Your task to perform on an android device: How much does a 2 bedroom apartment rent for in Boston? Image 0: 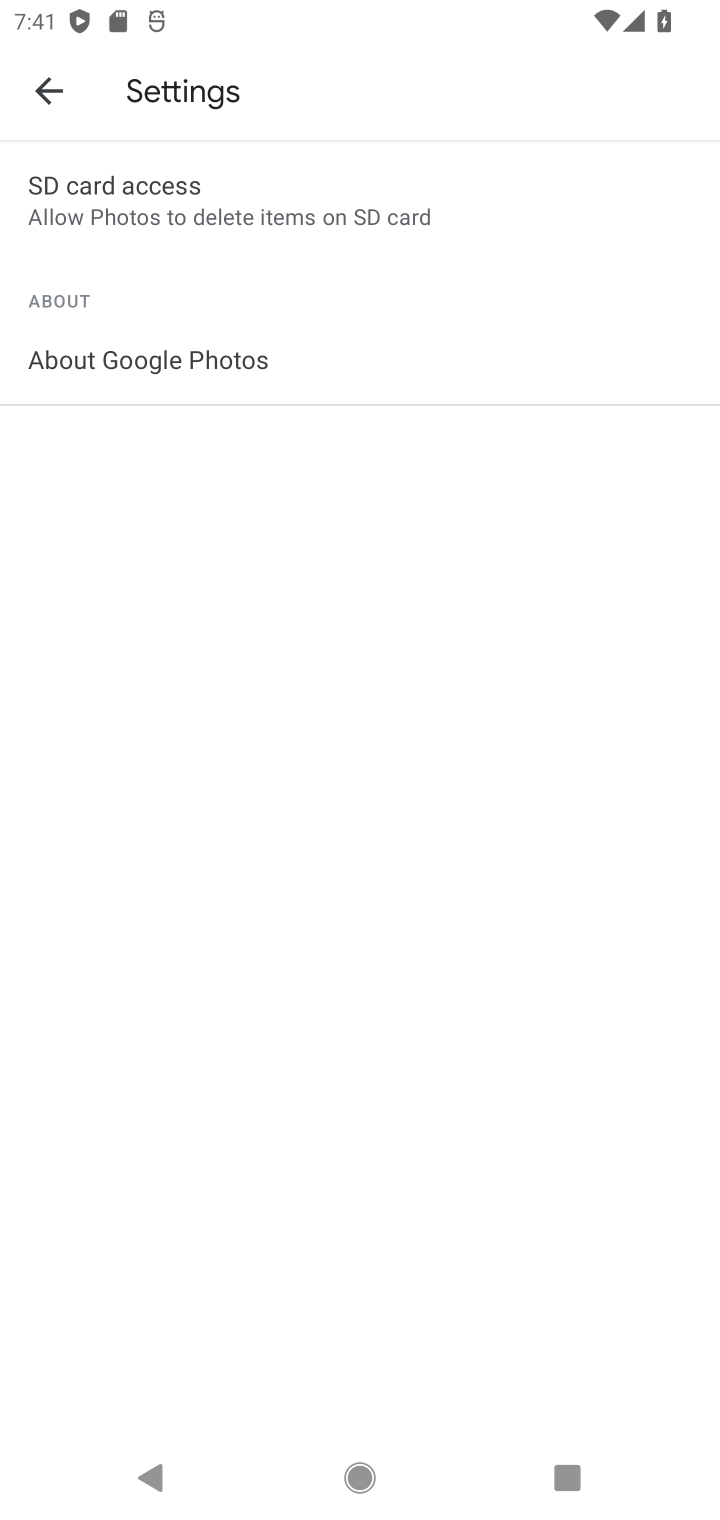
Step 0: press home button
Your task to perform on an android device: How much does a 2 bedroom apartment rent for in Boston? Image 1: 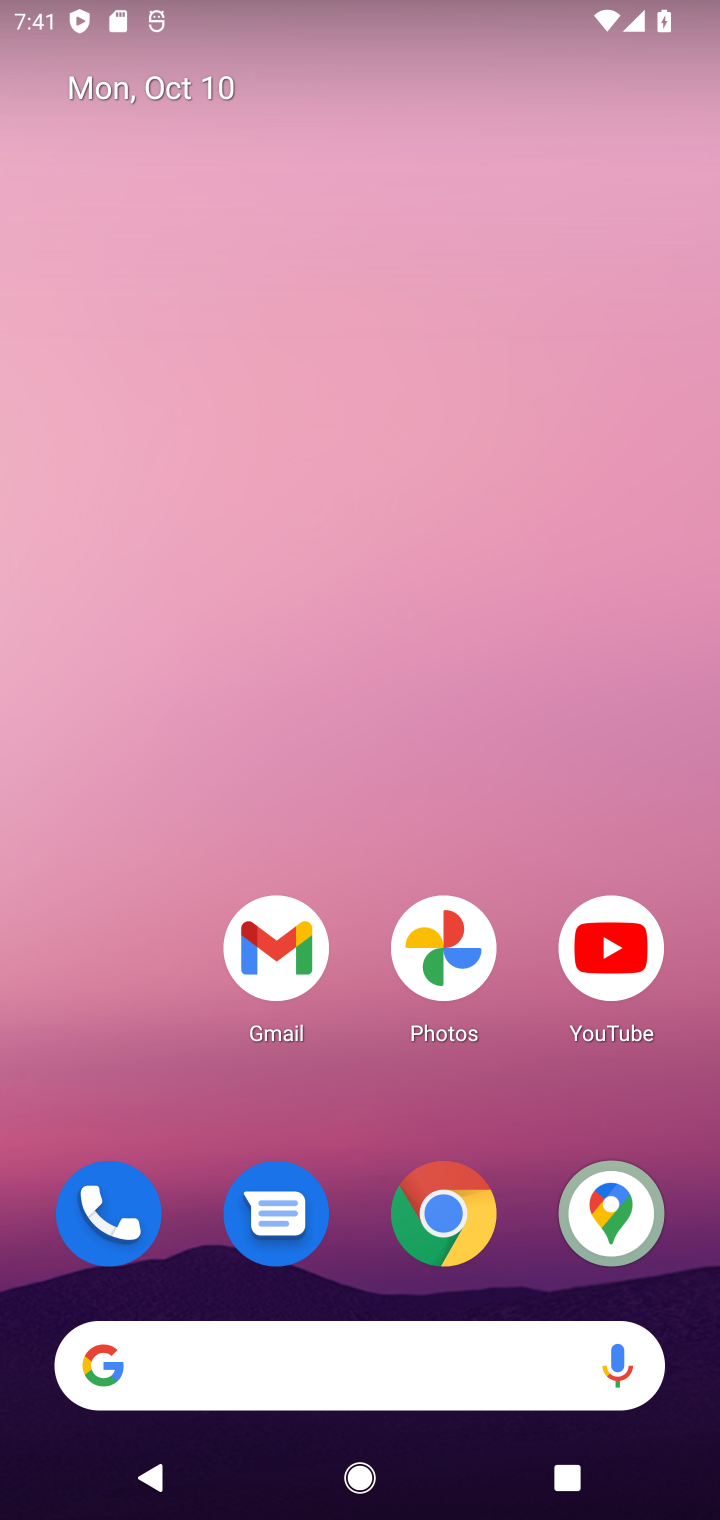
Step 1: click (207, 1370)
Your task to perform on an android device: How much does a 2 bedroom apartment rent for in Boston? Image 2: 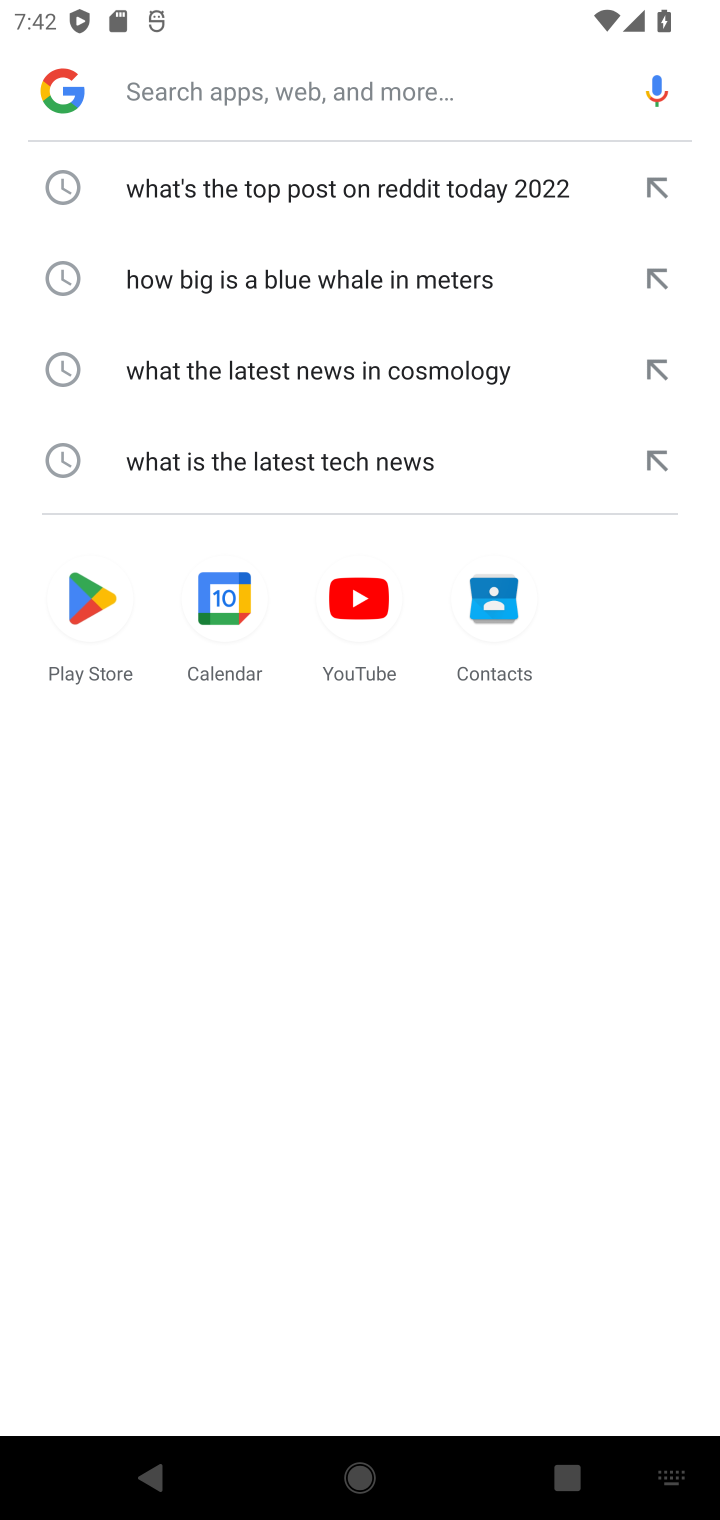
Step 2: click (271, 77)
Your task to perform on an android device: How much does a 2 bedroom apartment rent for in Boston? Image 3: 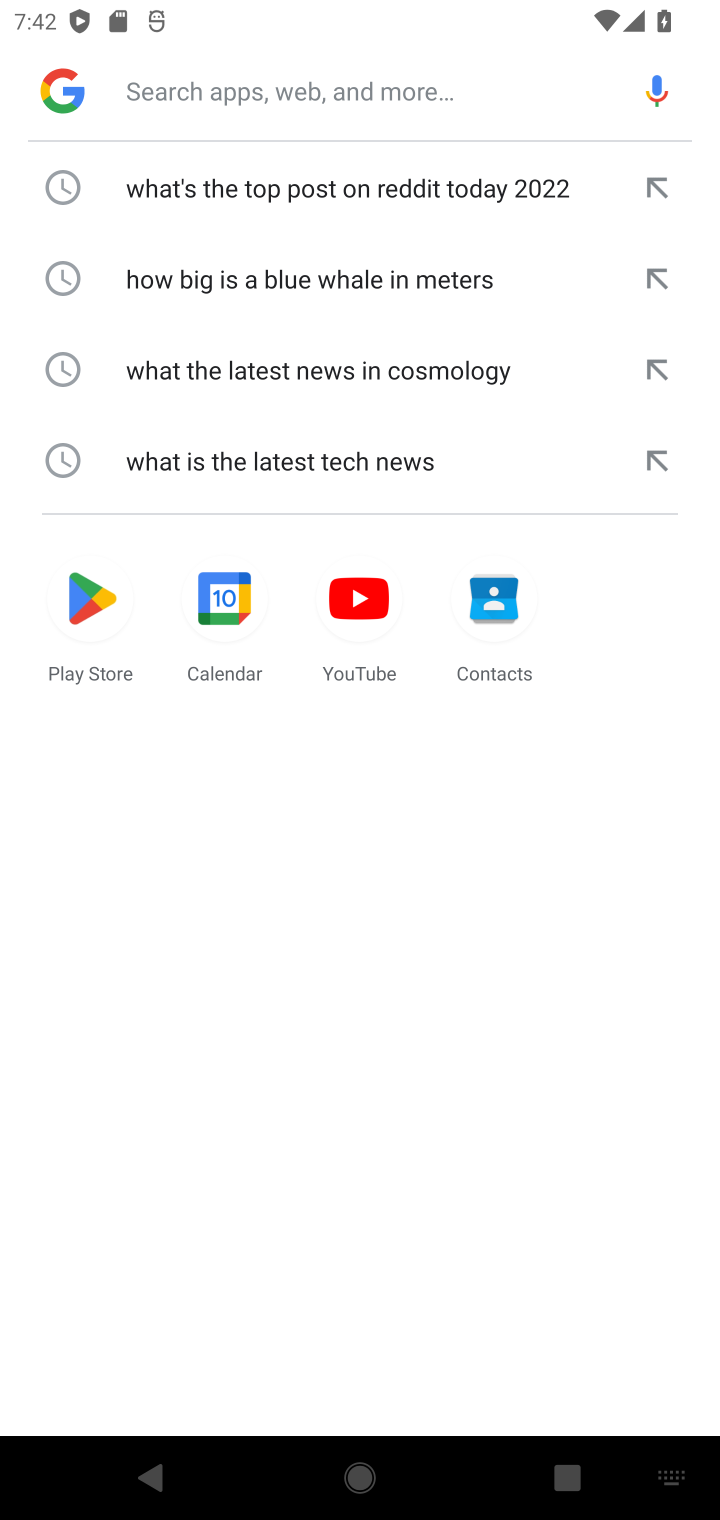
Step 3: type "How much does a 2 bedroom apartment rent for in Boston?"
Your task to perform on an android device: How much does a 2 bedroom apartment rent for in Boston? Image 4: 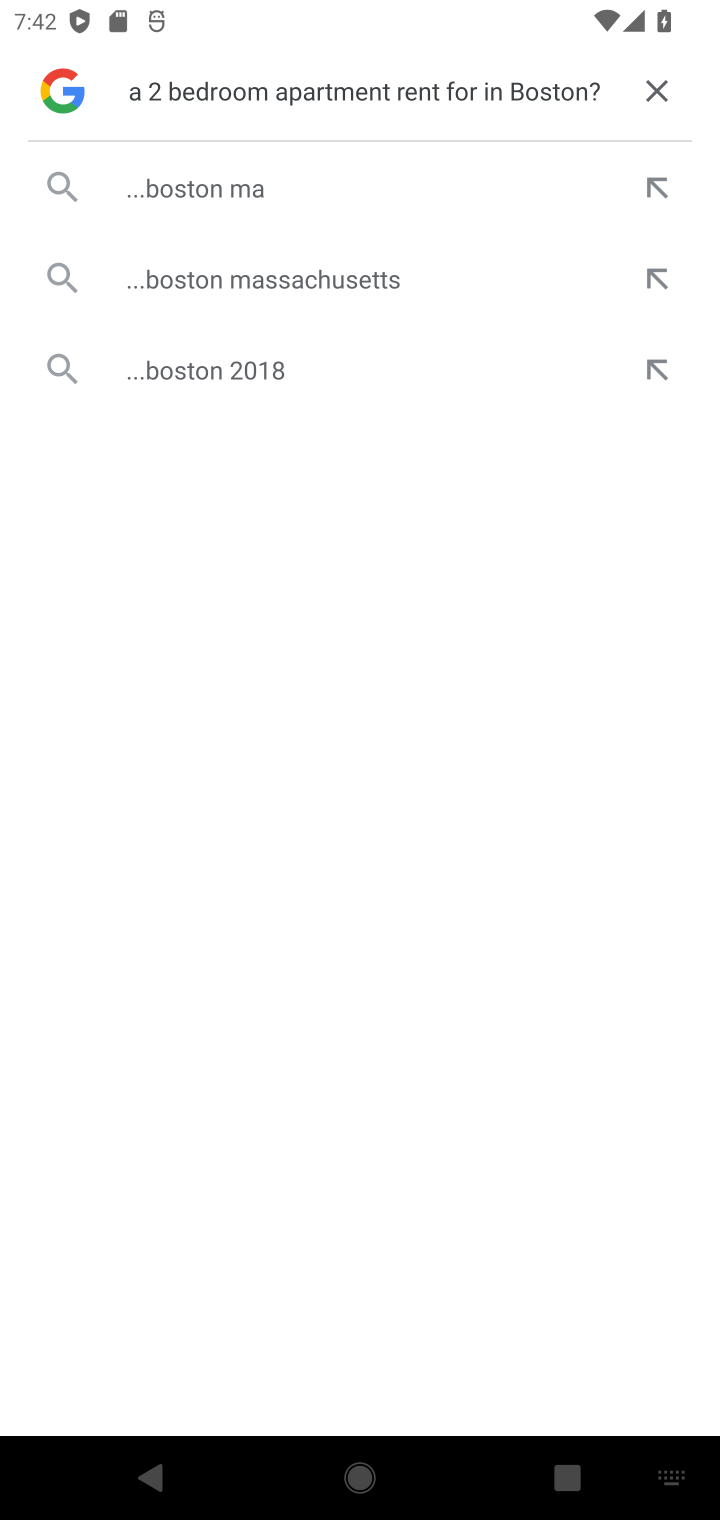
Step 4: click (433, 163)
Your task to perform on an android device: How much does a 2 bedroom apartment rent for in Boston? Image 5: 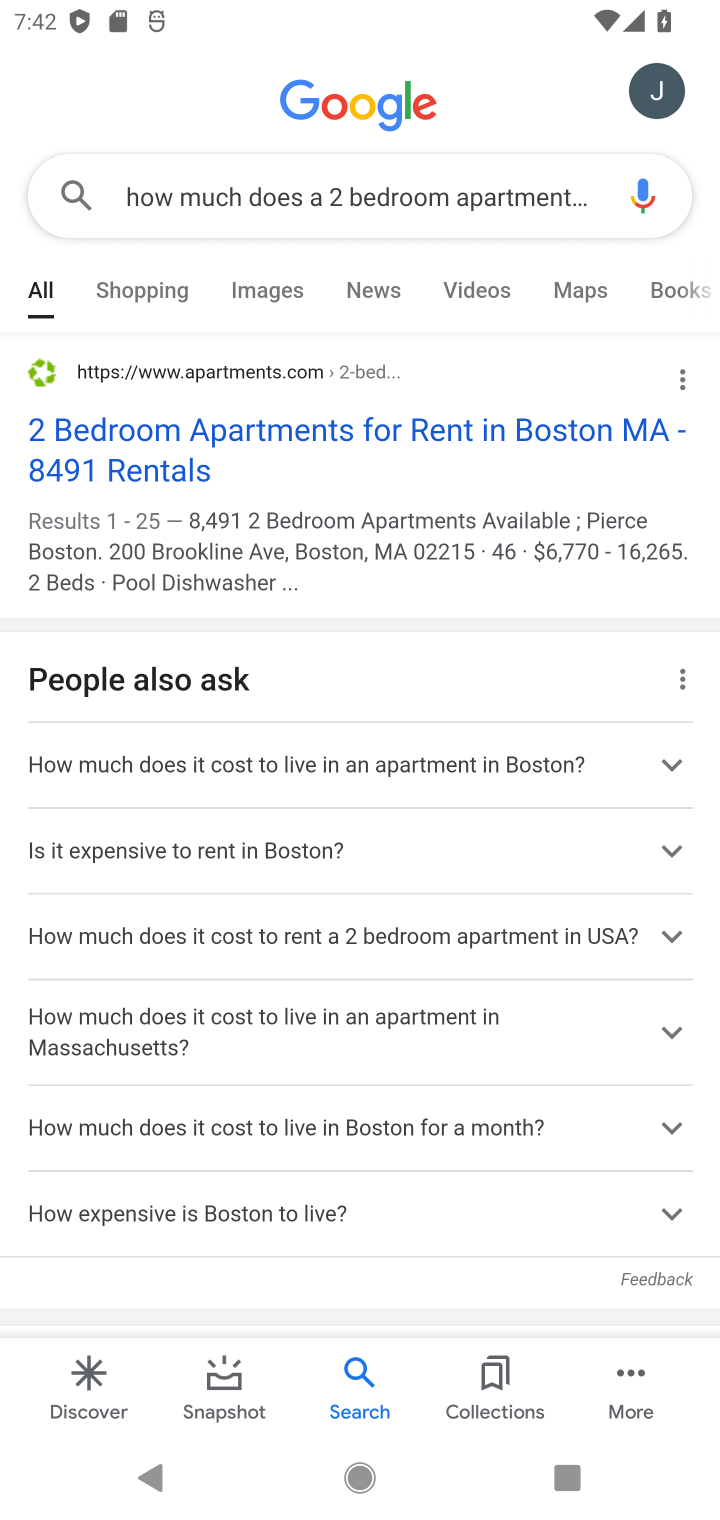
Step 5: click (174, 440)
Your task to perform on an android device: How much does a 2 bedroom apartment rent for in Boston? Image 6: 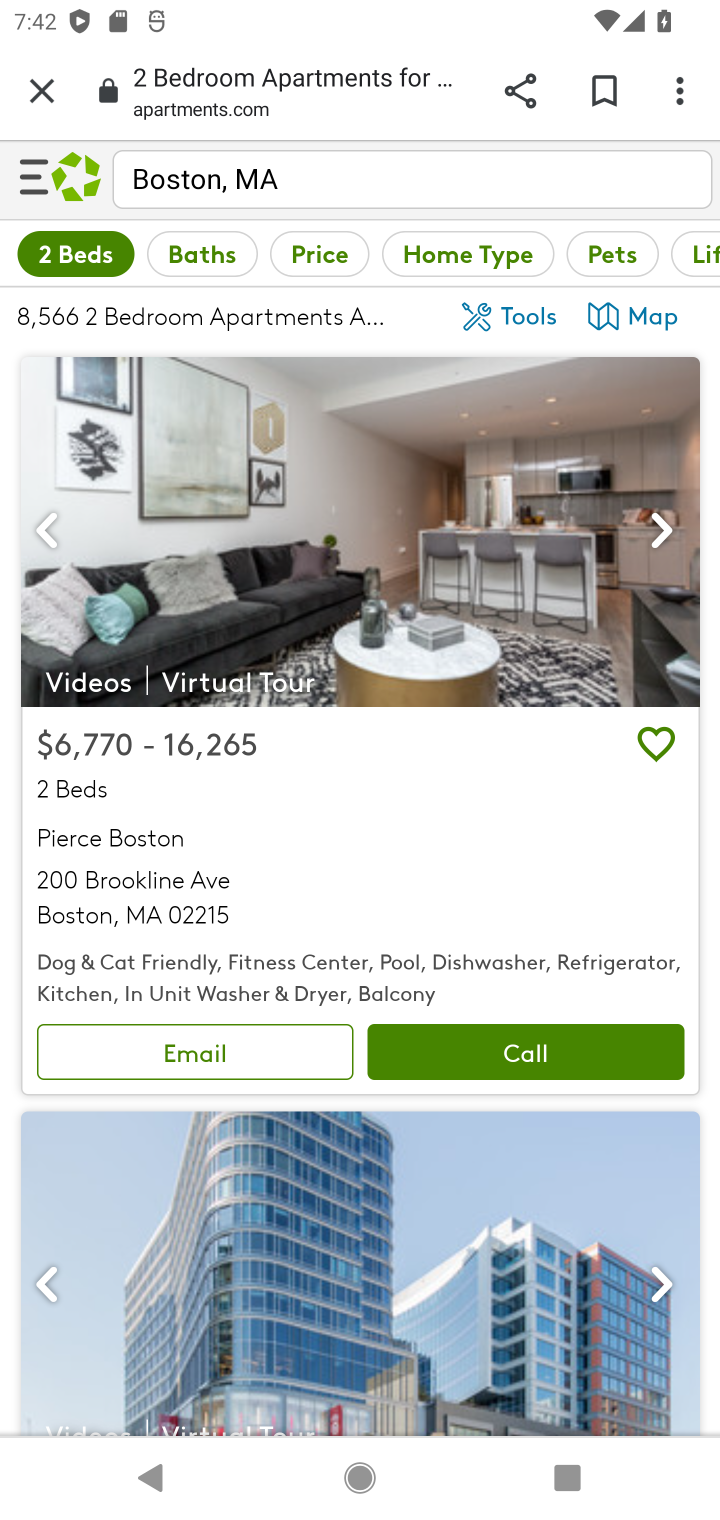
Step 6: task complete